Your task to perform on an android device: What's the weather? Image 0: 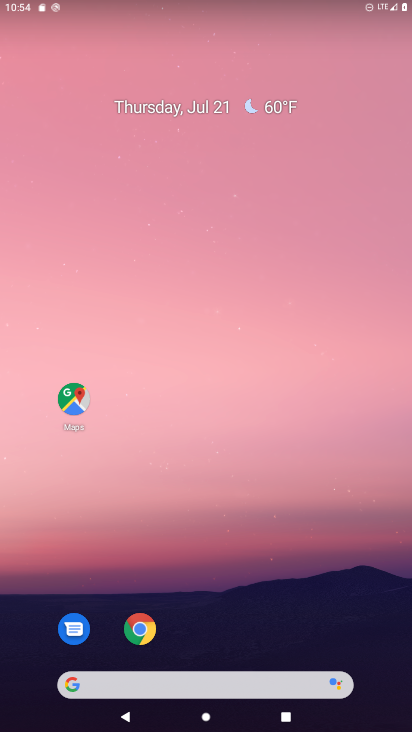
Step 0: press home button
Your task to perform on an android device: What's the weather? Image 1: 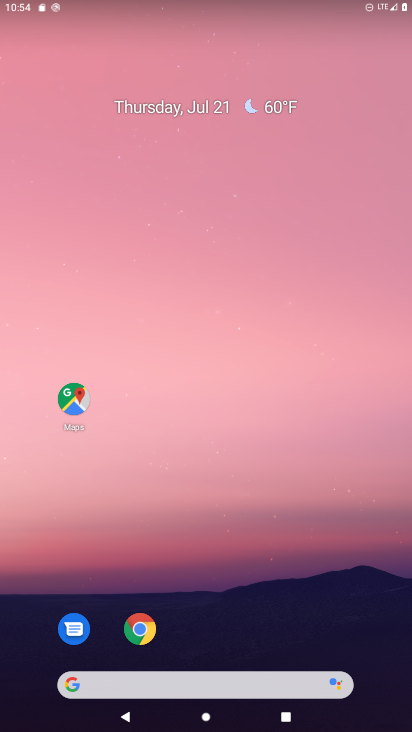
Step 1: click (69, 684)
Your task to perform on an android device: What's the weather? Image 2: 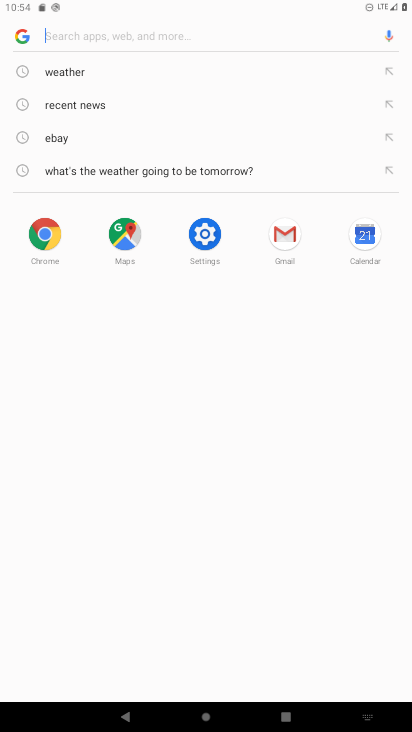
Step 2: click (58, 71)
Your task to perform on an android device: What's the weather? Image 3: 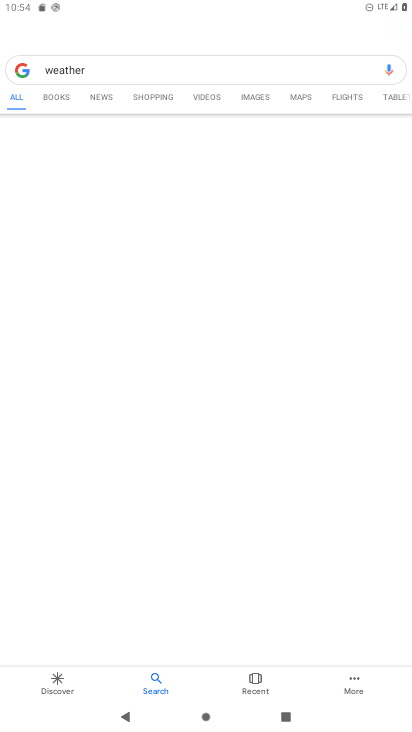
Step 3: press enter
Your task to perform on an android device: What's the weather? Image 4: 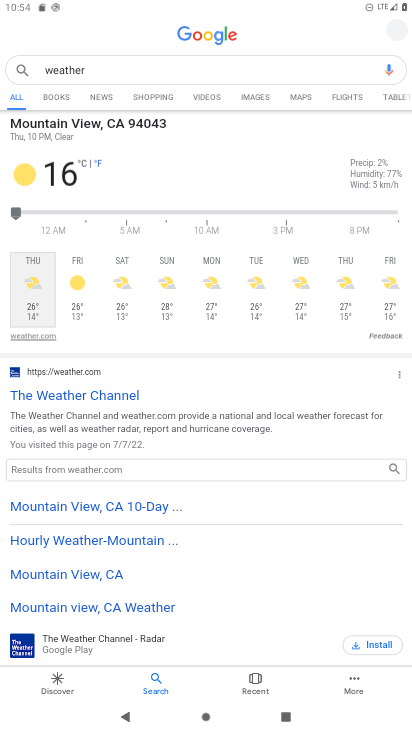
Step 4: task complete